Your task to perform on an android device: turn off data saver in the chrome app Image 0: 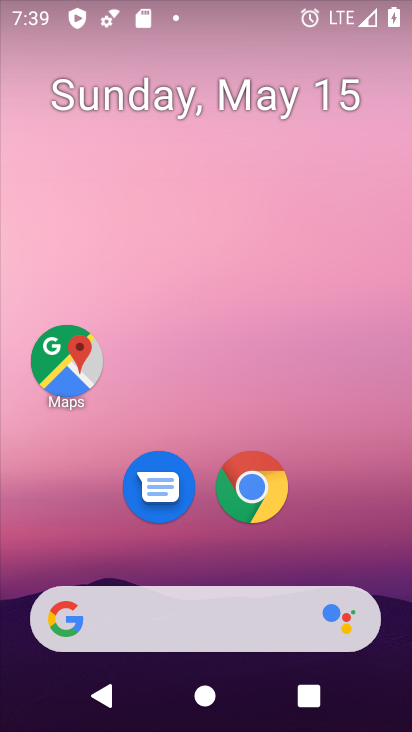
Step 0: drag from (330, 516) to (312, 86)
Your task to perform on an android device: turn off data saver in the chrome app Image 1: 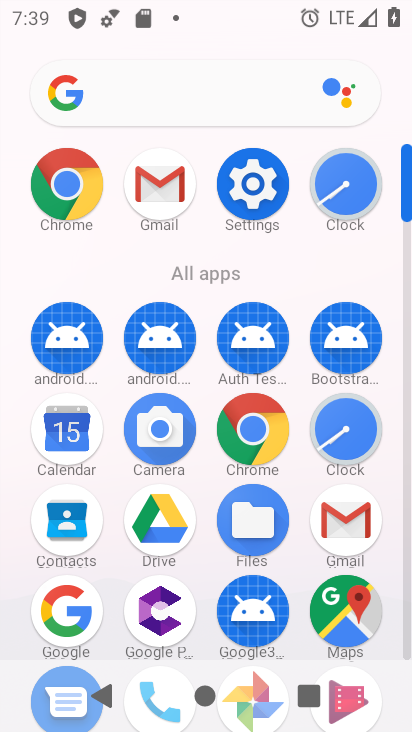
Step 1: drag from (299, 561) to (286, 210)
Your task to perform on an android device: turn off data saver in the chrome app Image 2: 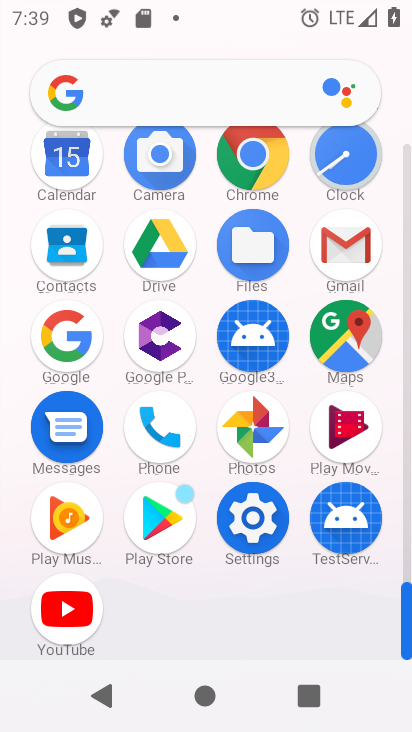
Step 2: click (257, 162)
Your task to perform on an android device: turn off data saver in the chrome app Image 3: 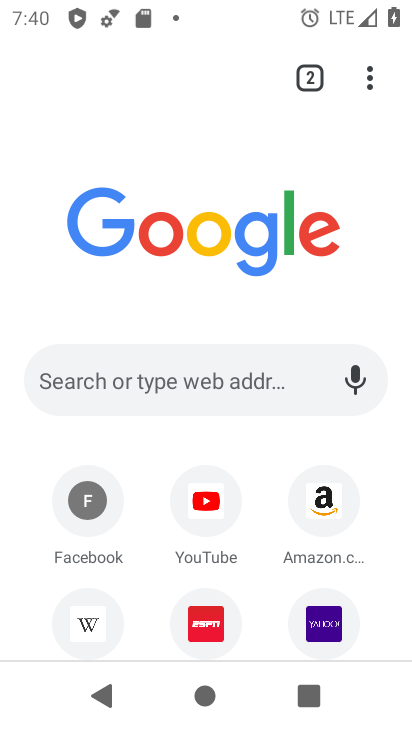
Step 3: click (364, 89)
Your task to perform on an android device: turn off data saver in the chrome app Image 4: 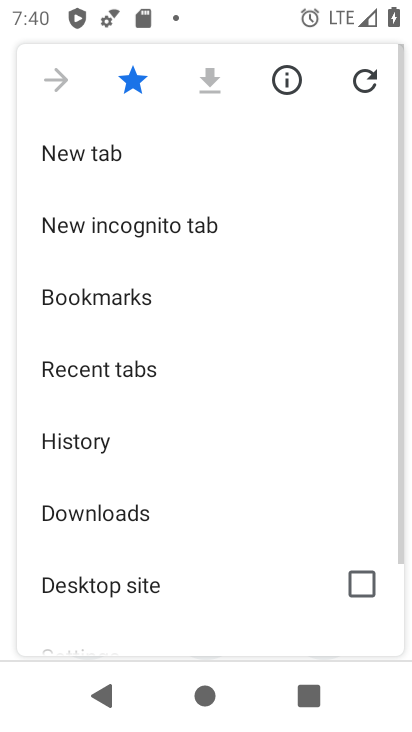
Step 4: drag from (275, 583) to (267, 214)
Your task to perform on an android device: turn off data saver in the chrome app Image 5: 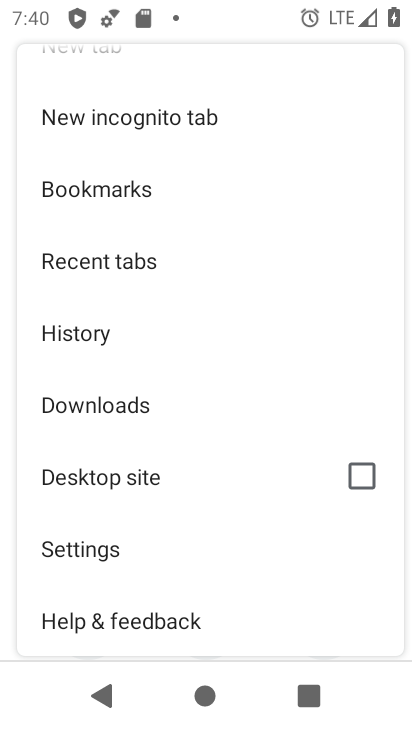
Step 5: drag from (192, 568) to (230, 274)
Your task to perform on an android device: turn off data saver in the chrome app Image 6: 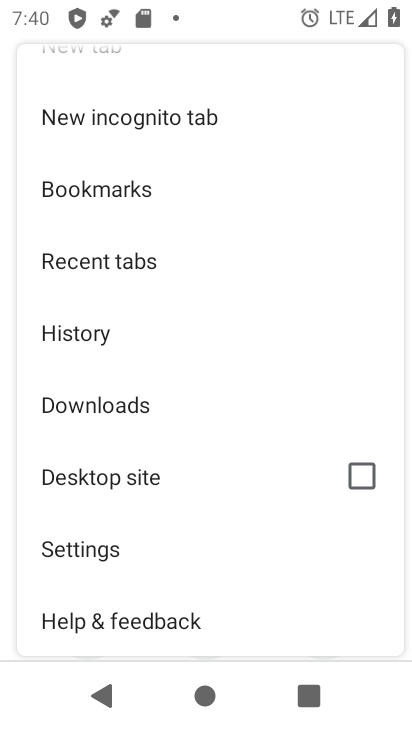
Step 6: drag from (241, 593) to (222, 262)
Your task to perform on an android device: turn off data saver in the chrome app Image 7: 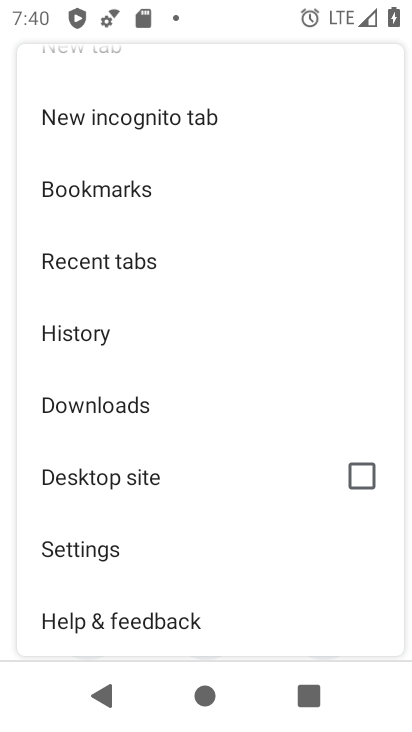
Step 7: click (134, 560)
Your task to perform on an android device: turn off data saver in the chrome app Image 8: 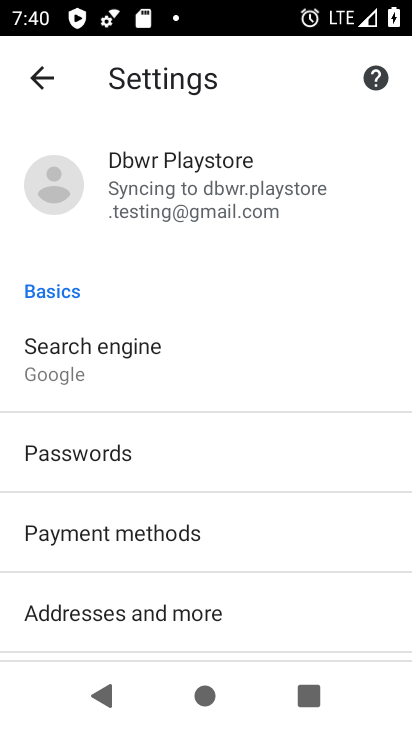
Step 8: drag from (325, 571) to (332, 298)
Your task to perform on an android device: turn off data saver in the chrome app Image 9: 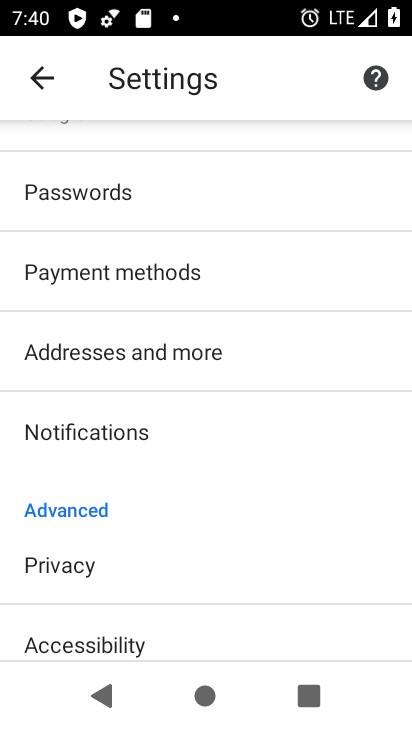
Step 9: drag from (302, 626) to (303, 322)
Your task to perform on an android device: turn off data saver in the chrome app Image 10: 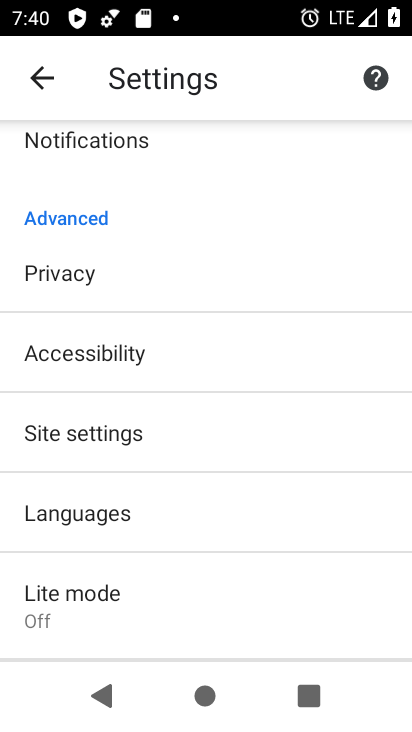
Step 10: click (222, 616)
Your task to perform on an android device: turn off data saver in the chrome app Image 11: 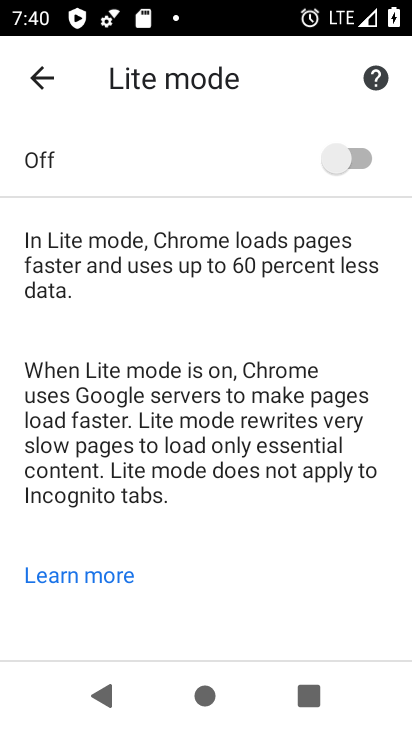
Step 11: task complete